Your task to perform on an android device: turn on airplane mode Image 0: 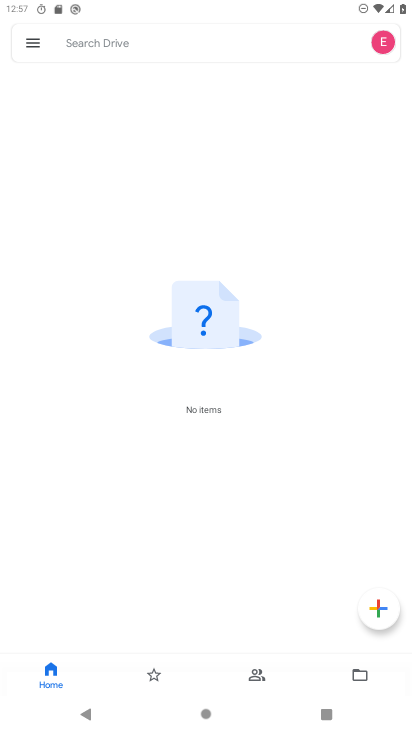
Step 0: press home button
Your task to perform on an android device: turn on airplane mode Image 1: 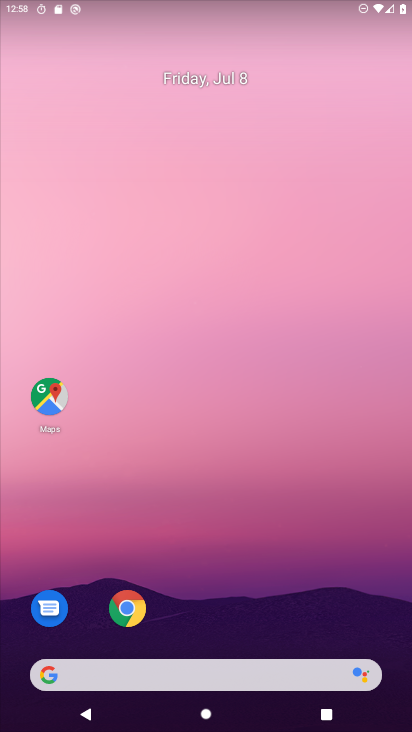
Step 1: drag from (245, 615) to (246, 142)
Your task to perform on an android device: turn on airplane mode Image 2: 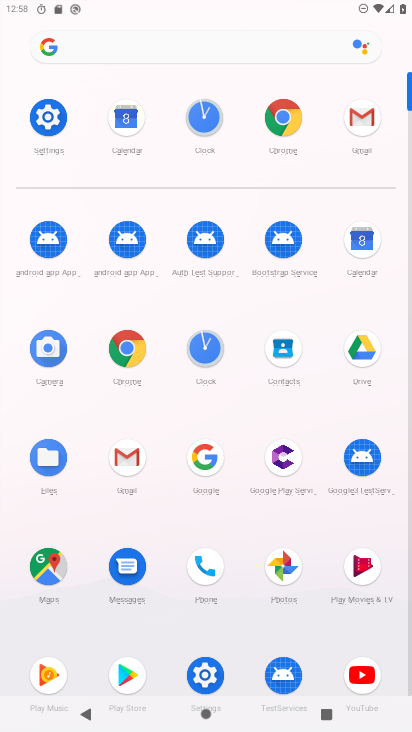
Step 2: click (51, 120)
Your task to perform on an android device: turn on airplane mode Image 3: 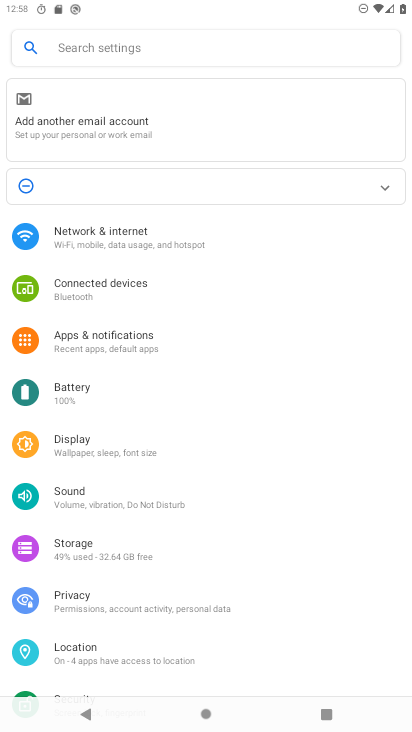
Step 3: click (104, 239)
Your task to perform on an android device: turn on airplane mode Image 4: 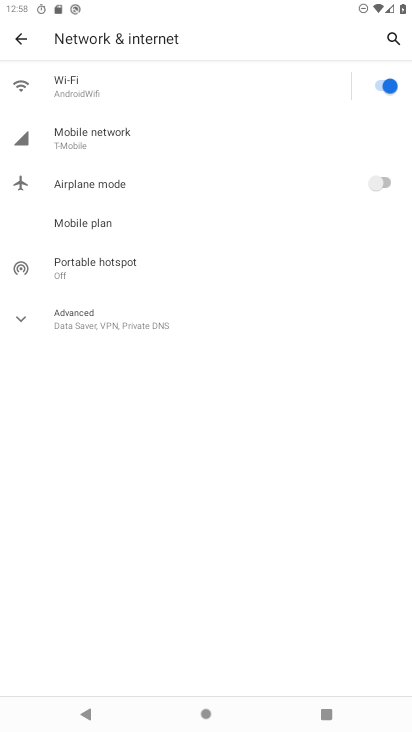
Step 4: click (389, 180)
Your task to perform on an android device: turn on airplane mode Image 5: 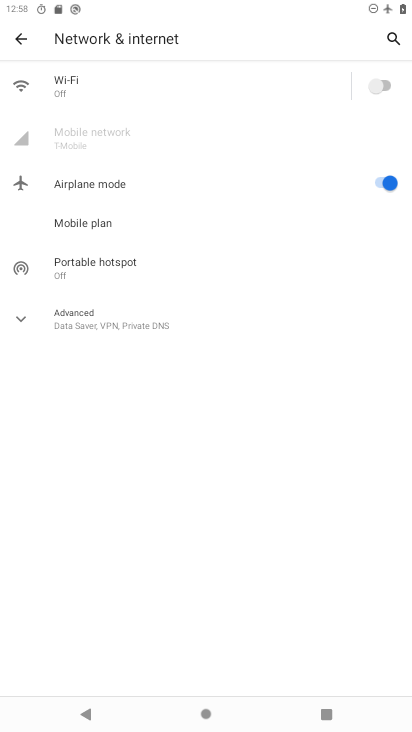
Step 5: task complete